Your task to perform on an android device: turn on translation in the chrome app Image 0: 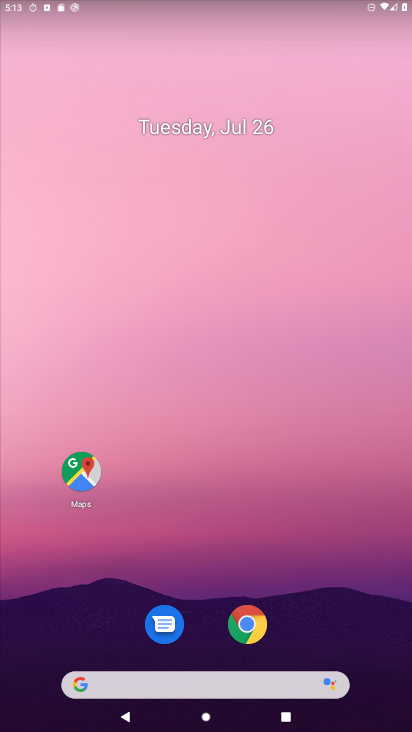
Step 0: drag from (269, 649) to (287, 0)
Your task to perform on an android device: turn on translation in the chrome app Image 1: 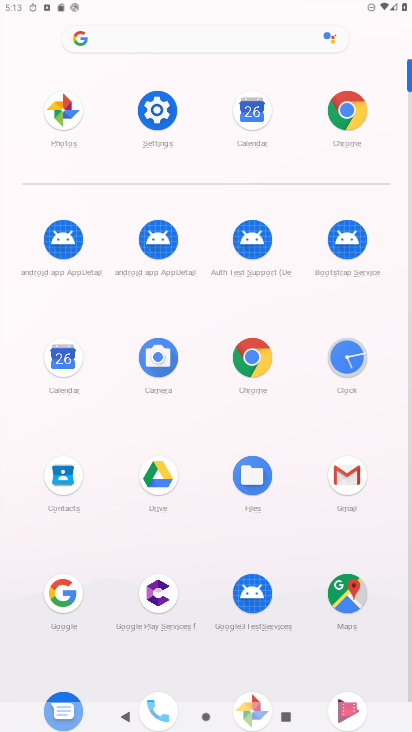
Step 1: click (259, 365)
Your task to perform on an android device: turn on translation in the chrome app Image 2: 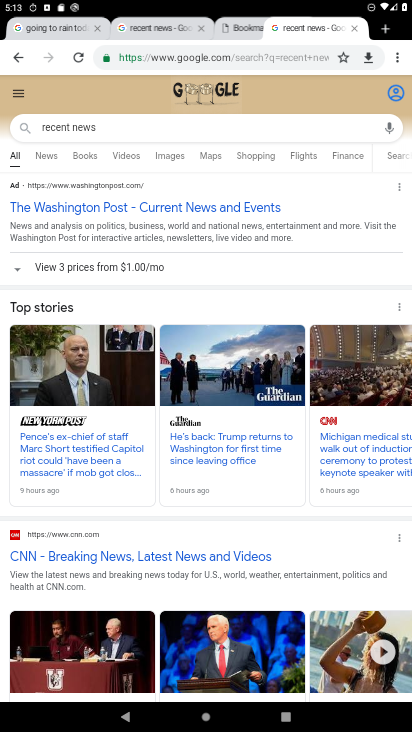
Step 2: click (395, 49)
Your task to perform on an android device: turn on translation in the chrome app Image 3: 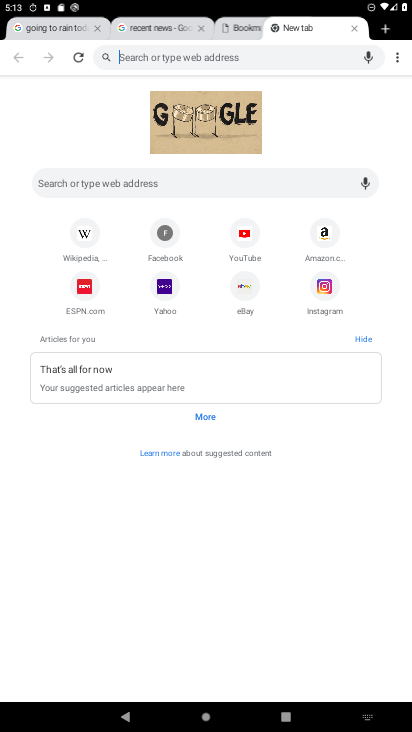
Step 3: click (397, 54)
Your task to perform on an android device: turn on translation in the chrome app Image 4: 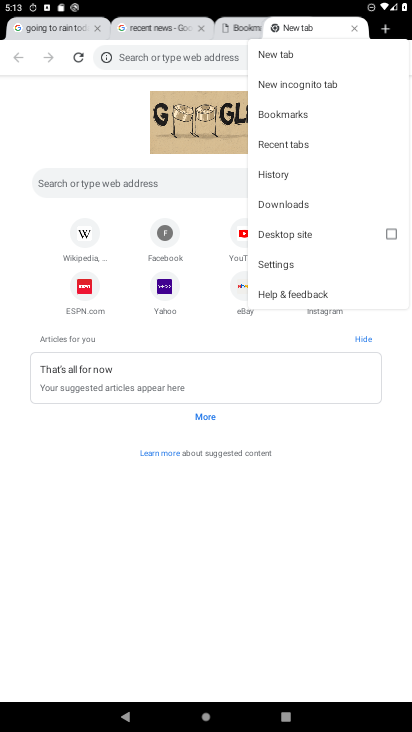
Step 4: click (310, 267)
Your task to perform on an android device: turn on translation in the chrome app Image 5: 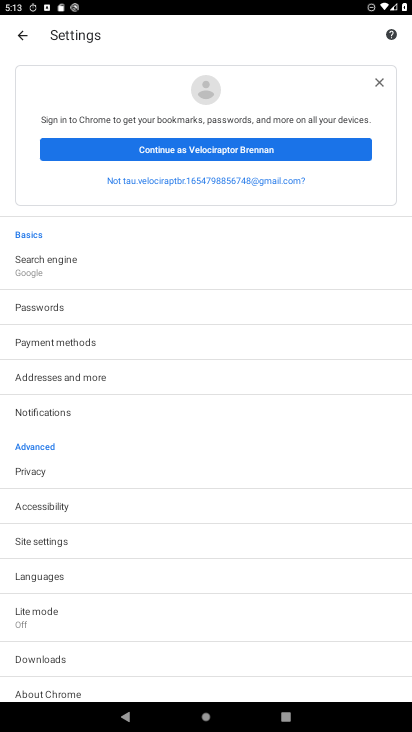
Step 5: click (68, 581)
Your task to perform on an android device: turn on translation in the chrome app Image 6: 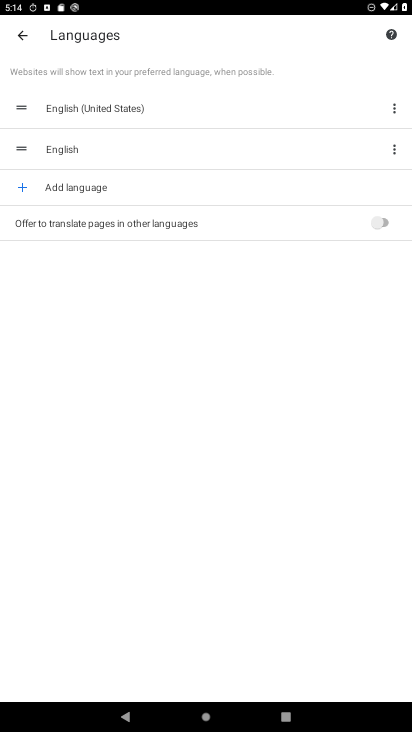
Step 6: click (103, 224)
Your task to perform on an android device: turn on translation in the chrome app Image 7: 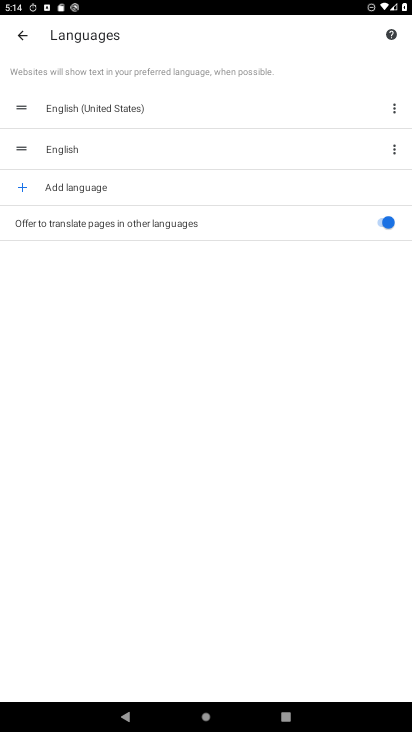
Step 7: task complete